Your task to perform on an android device: Go to eBay Image 0: 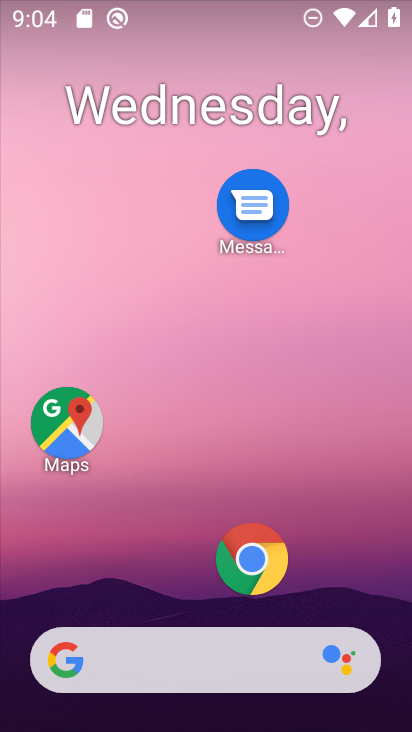
Step 0: drag from (138, 591) to (173, 177)
Your task to perform on an android device: Go to eBay Image 1: 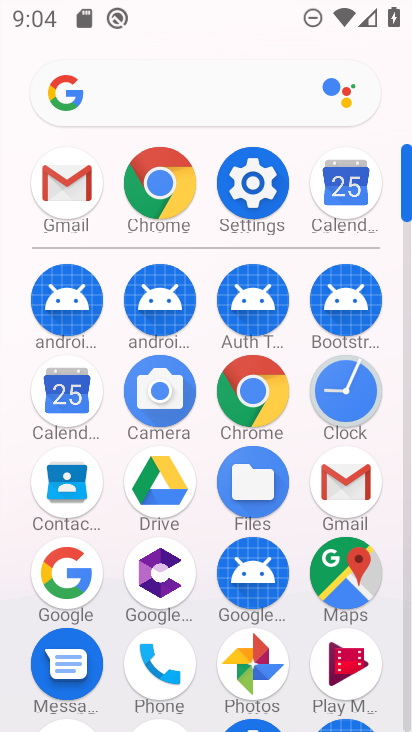
Step 1: click (257, 404)
Your task to perform on an android device: Go to eBay Image 2: 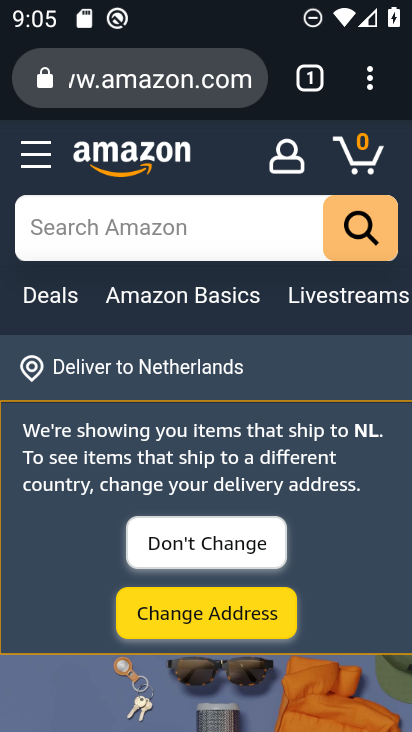
Step 2: click (234, 91)
Your task to perform on an android device: Go to eBay Image 3: 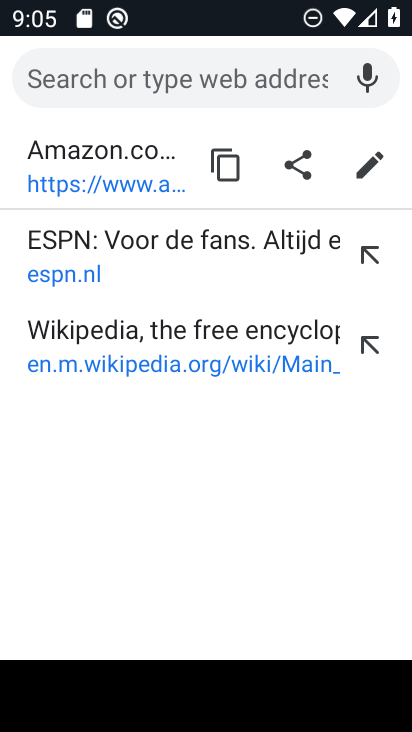
Step 3: type "ebay"
Your task to perform on an android device: Go to eBay Image 4: 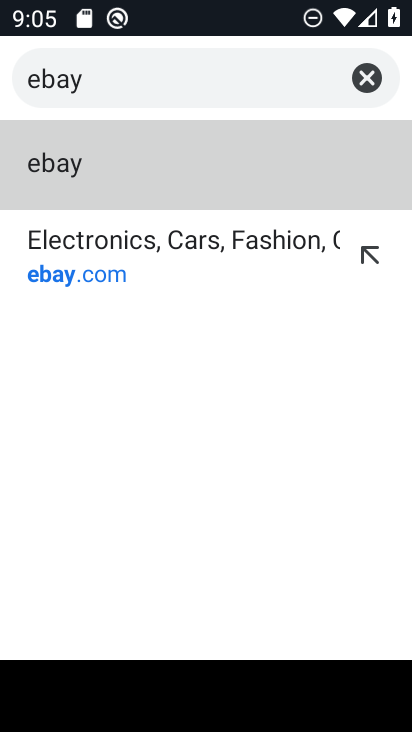
Step 4: click (307, 261)
Your task to perform on an android device: Go to eBay Image 5: 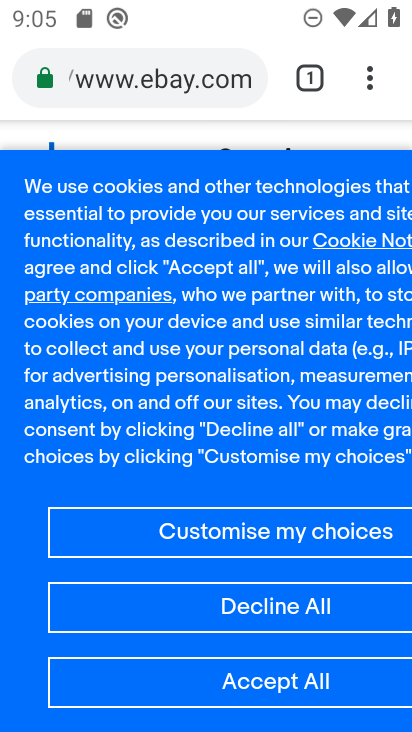
Step 5: task complete